Your task to perform on an android device: Open Google Image 0: 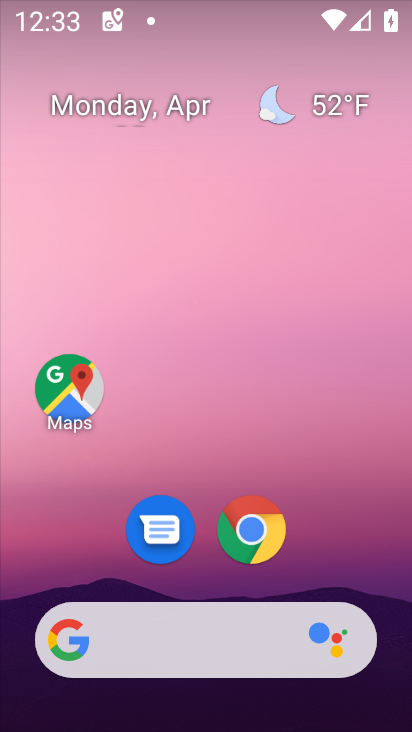
Step 0: drag from (399, 414) to (355, 147)
Your task to perform on an android device: Open Google Image 1: 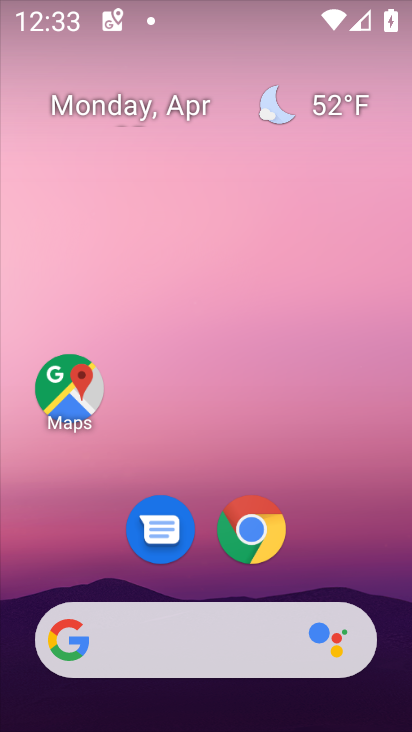
Step 1: drag from (387, 537) to (351, 170)
Your task to perform on an android device: Open Google Image 2: 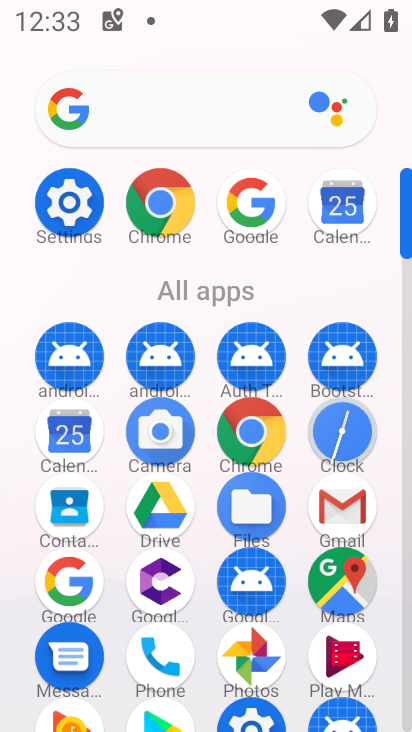
Step 2: click (73, 570)
Your task to perform on an android device: Open Google Image 3: 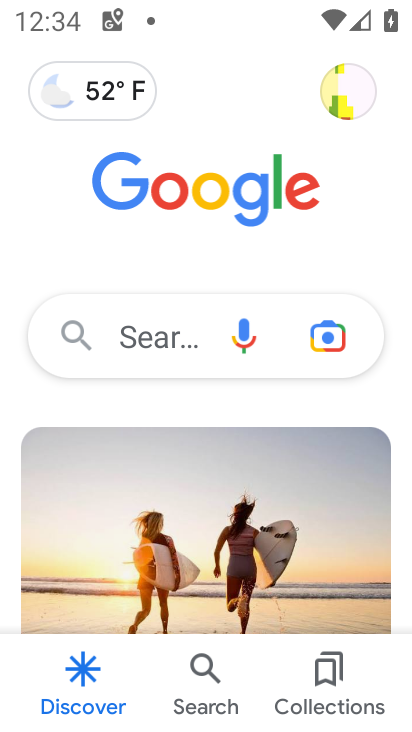
Step 3: task complete